Your task to perform on an android device: Open Maps and search for coffee Image 0: 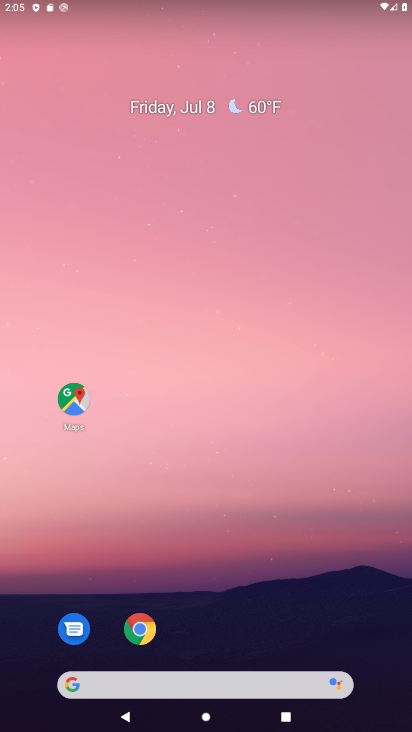
Step 0: click (65, 404)
Your task to perform on an android device: Open Maps and search for coffee Image 1: 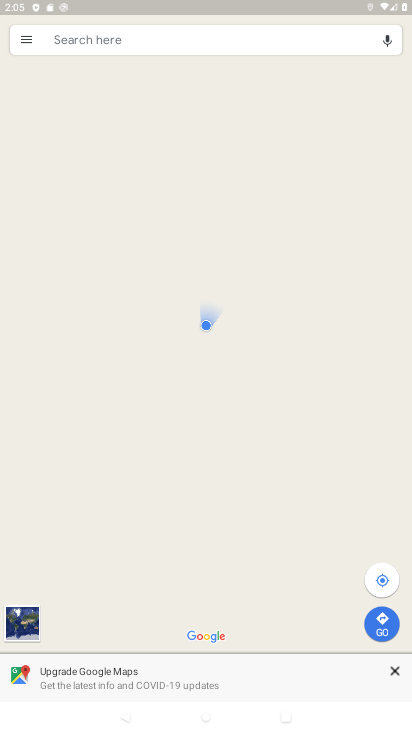
Step 1: click (187, 39)
Your task to perform on an android device: Open Maps and search for coffee Image 2: 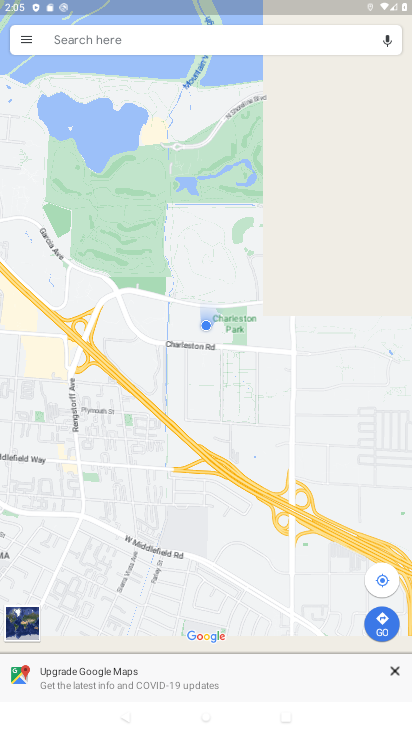
Step 2: click (124, 43)
Your task to perform on an android device: Open Maps and search for coffee Image 3: 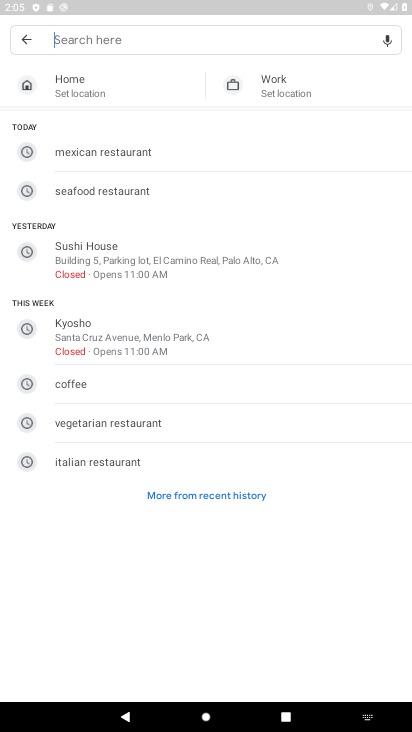
Step 3: click (66, 390)
Your task to perform on an android device: Open Maps and search for coffee Image 4: 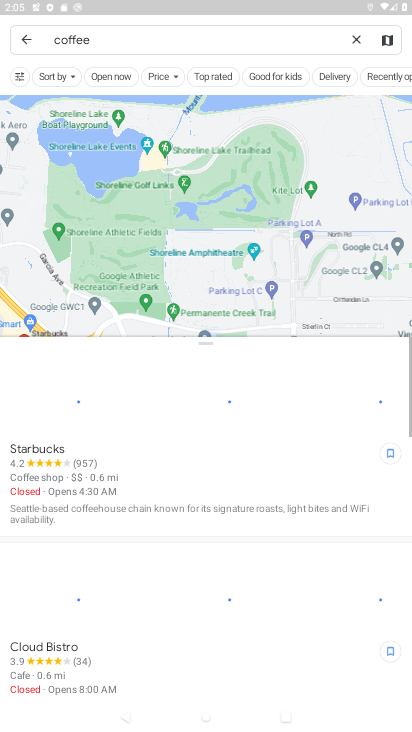
Step 4: task complete